Your task to perform on an android device: manage bookmarks in the chrome app Image 0: 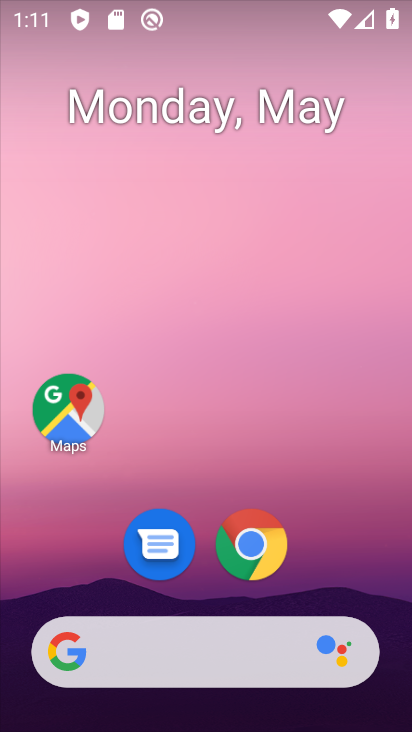
Step 0: drag from (381, 575) to (367, 233)
Your task to perform on an android device: manage bookmarks in the chrome app Image 1: 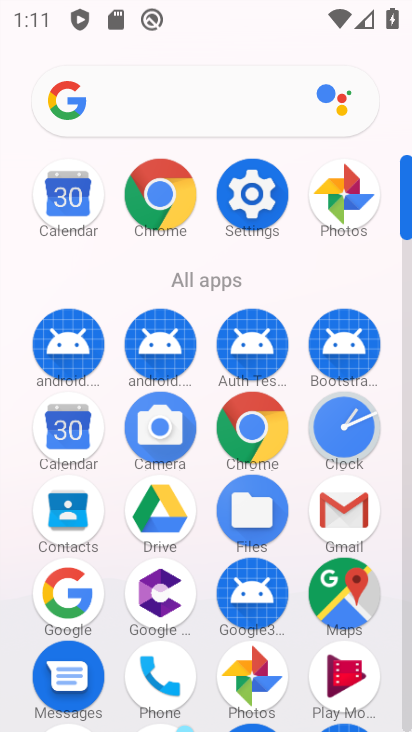
Step 1: click (264, 423)
Your task to perform on an android device: manage bookmarks in the chrome app Image 2: 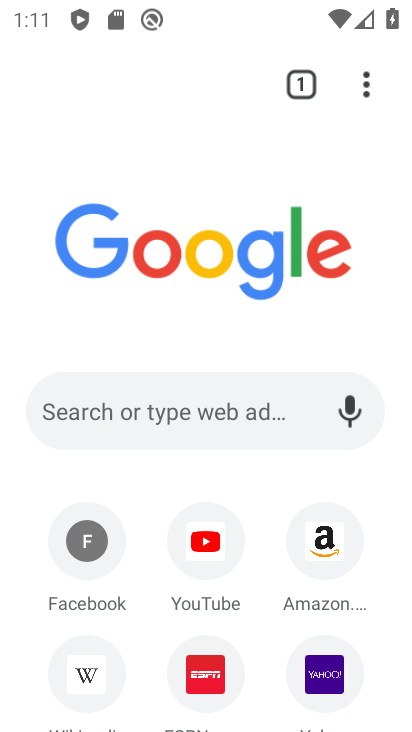
Step 2: click (365, 99)
Your task to perform on an android device: manage bookmarks in the chrome app Image 3: 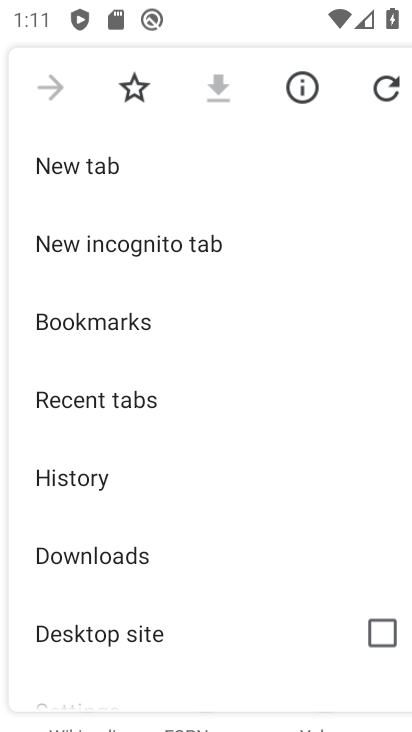
Step 3: drag from (296, 404) to (307, 330)
Your task to perform on an android device: manage bookmarks in the chrome app Image 4: 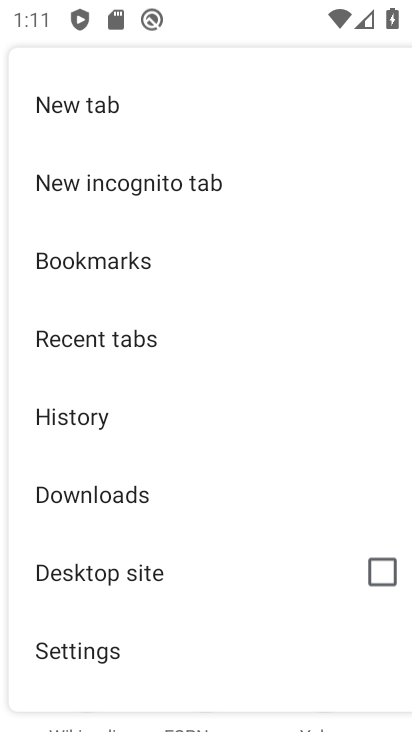
Step 4: drag from (298, 405) to (304, 317)
Your task to perform on an android device: manage bookmarks in the chrome app Image 5: 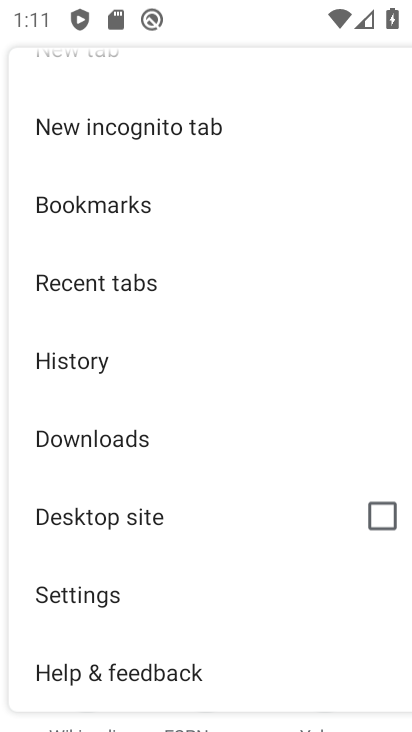
Step 5: drag from (287, 378) to (308, 205)
Your task to perform on an android device: manage bookmarks in the chrome app Image 6: 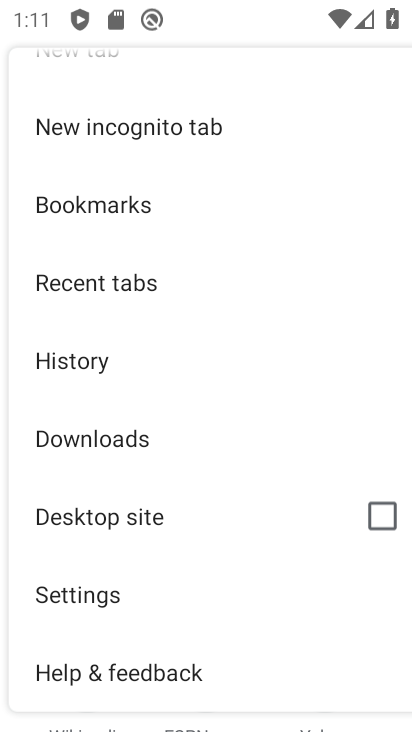
Step 6: click (152, 218)
Your task to perform on an android device: manage bookmarks in the chrome app Image 7: 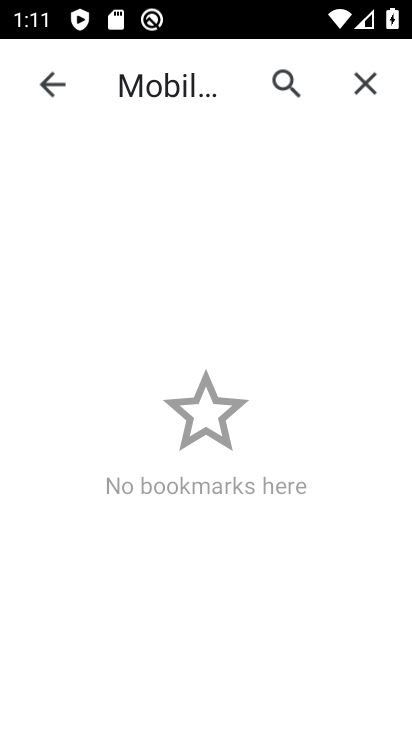
Step 7: task complete